Your task to perform on an android device: delete a single message in the gmail app Image 0: 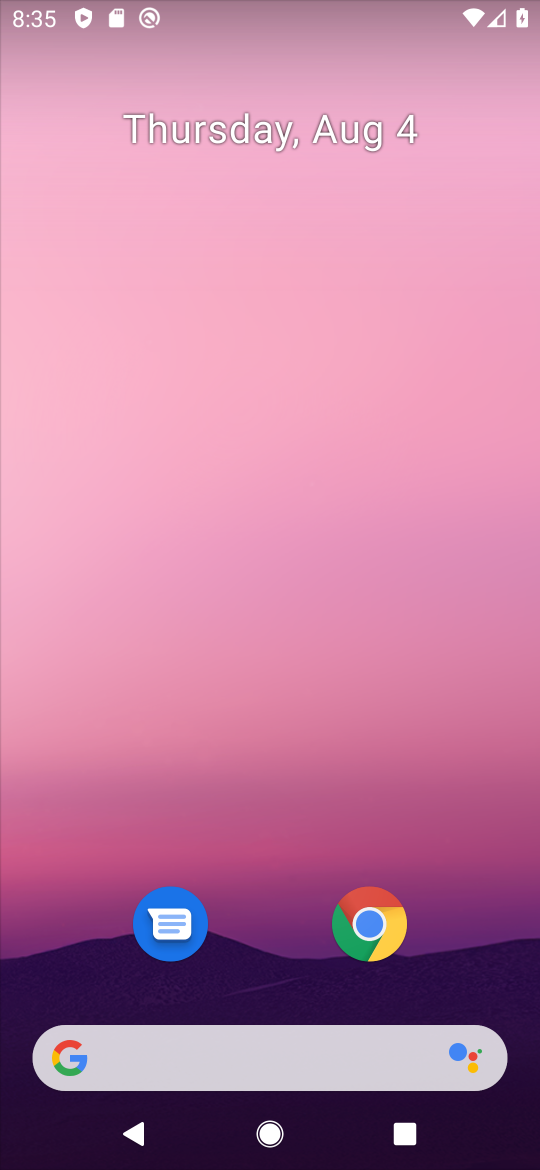
Step 0: drag from (316, 1037) to (306, 172)
Your task to perform on an android device: delete a single message in the gmail app Image 1: 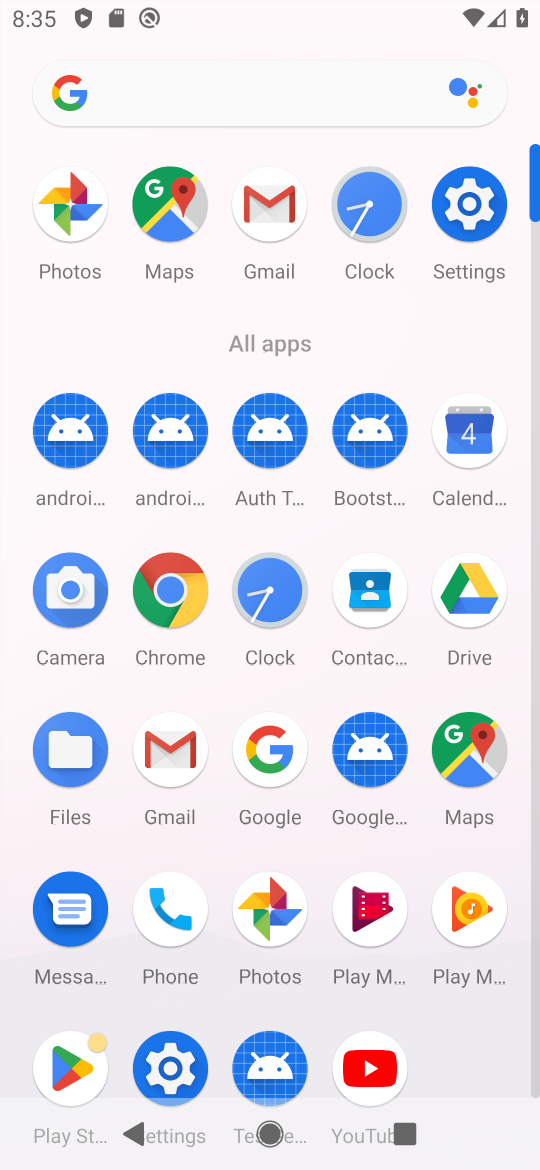
Step 1: click (190, 769)
Your task to perform on an android device: delete a single message in the gmail app Image 2: 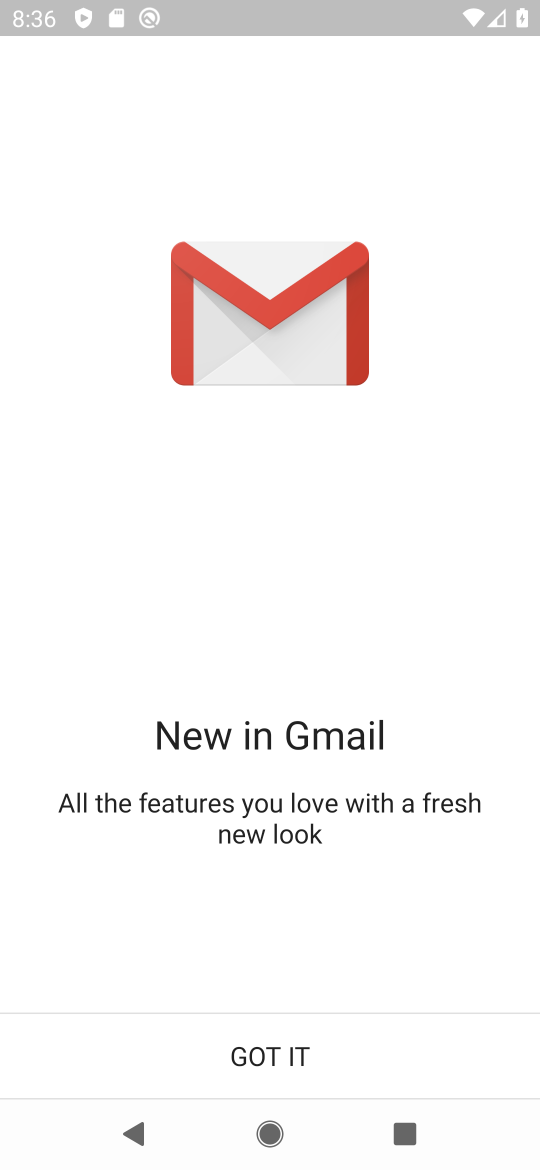
Step 2: click (299, 1051)
Your task to perform on an android device: delete a single message in the gmail app Image 3: 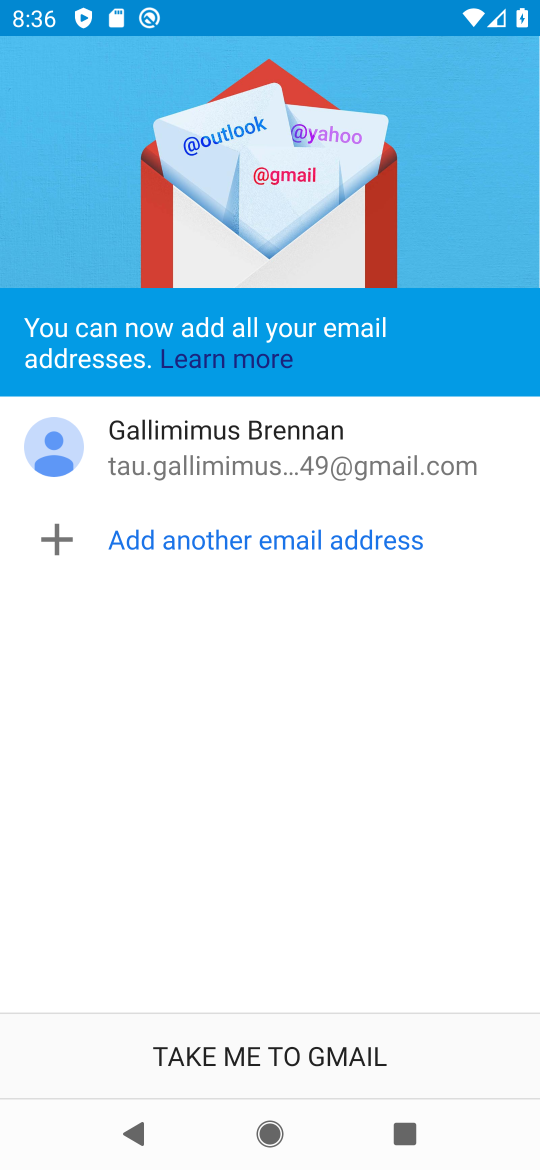
Step 3: click (332, 1058)
Your task to perform on an android device: delete a single message in the gmail app Image 4: 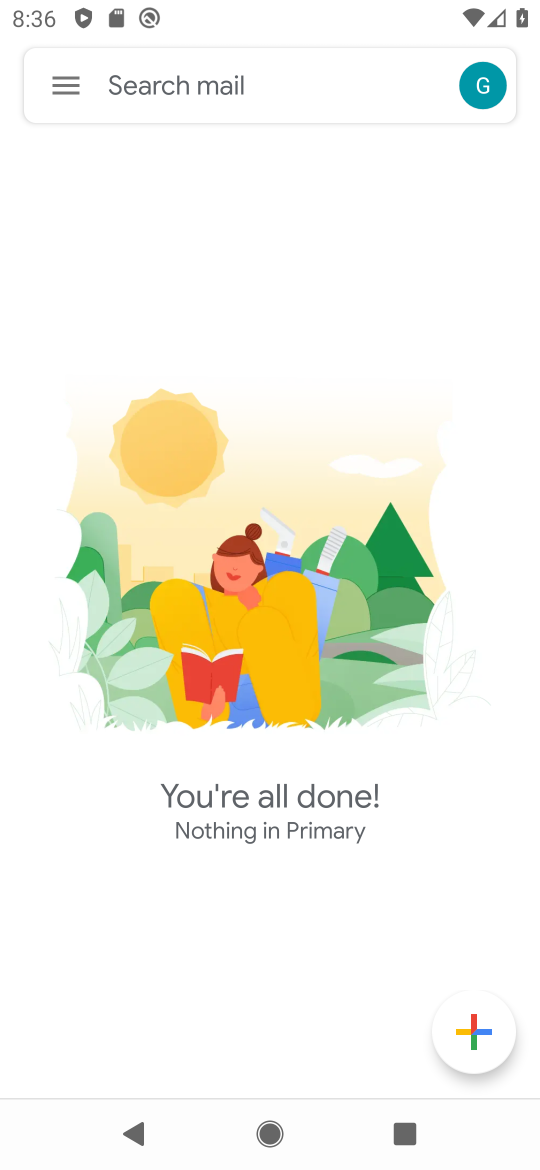
Step 4: task complete